Your task to perform on an android device: Play the last video I watched on Youtube Image 0: 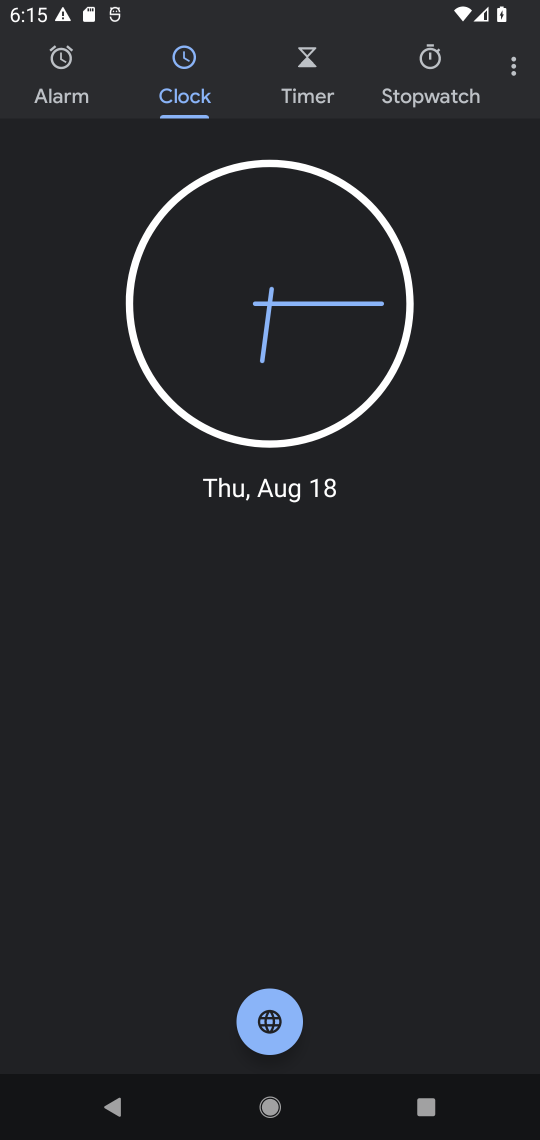
Step 0: press home button
Your task to perform on an android device: Play the last video I watched on Youtube Image 1: 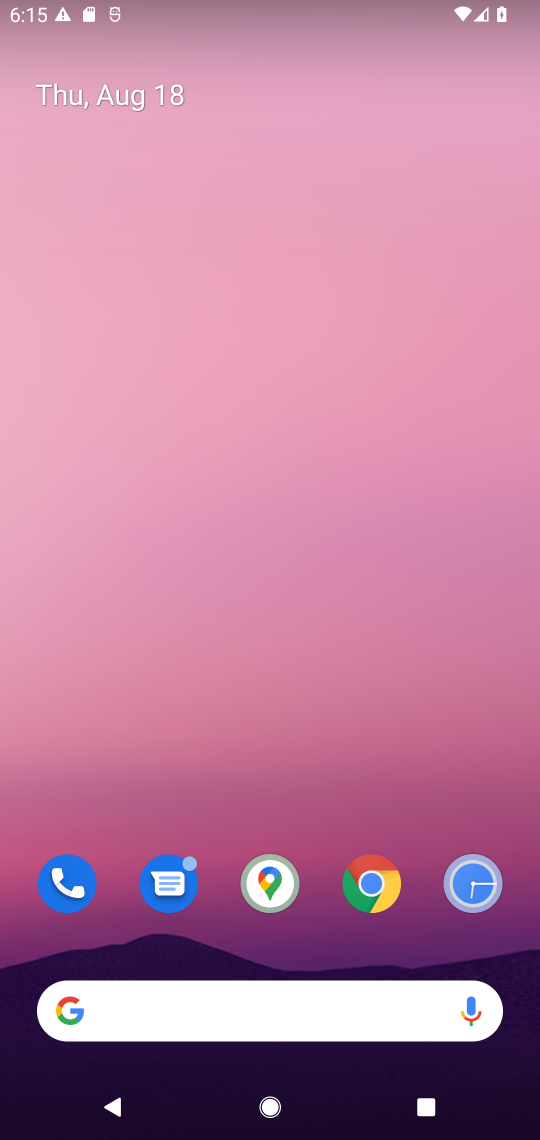
Step 1: drag from (32, 1114) to (216, 646)
Your task to perform on an android device: Play the last video I watched on Youtube Image 2: 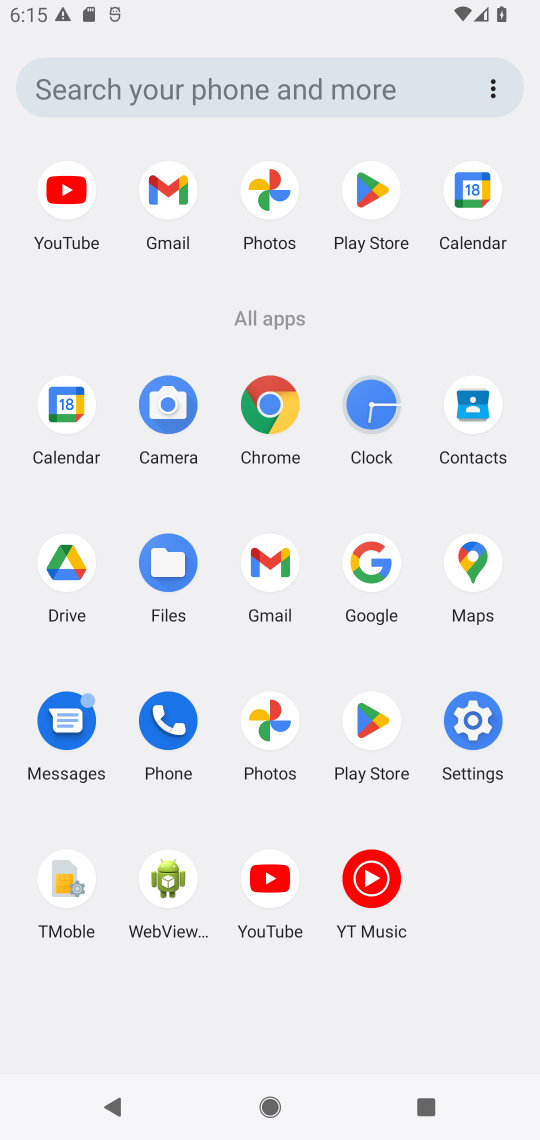
Step 2: click (259, 869)
Your task to perform on an android device: Play the last video I watched on Youtube Image 3: 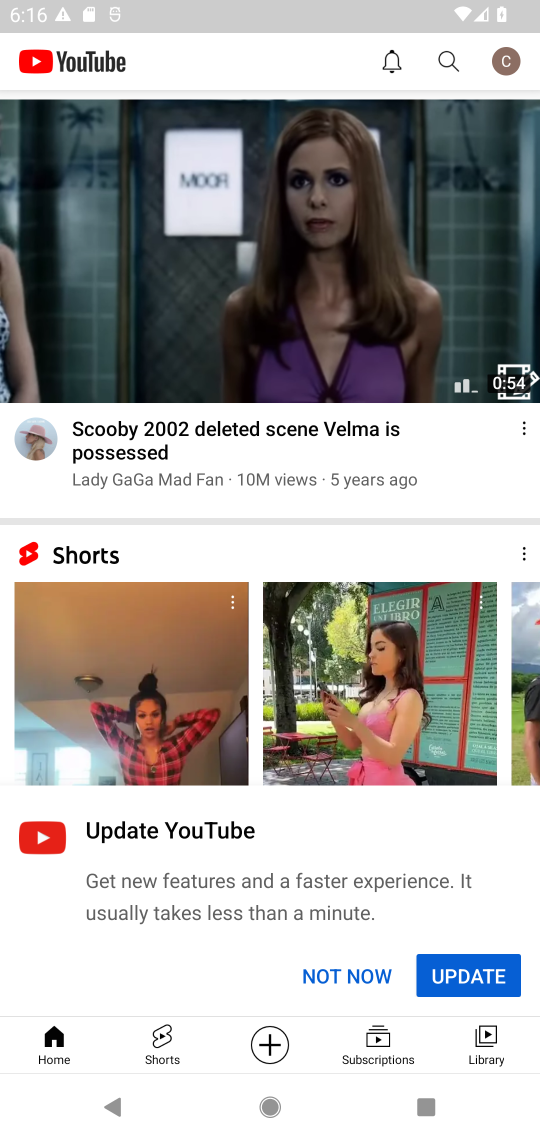
Step 3: click (473, 1049)
Your task to perform on an android device: Play the last video I watched on Youtube Image 4: 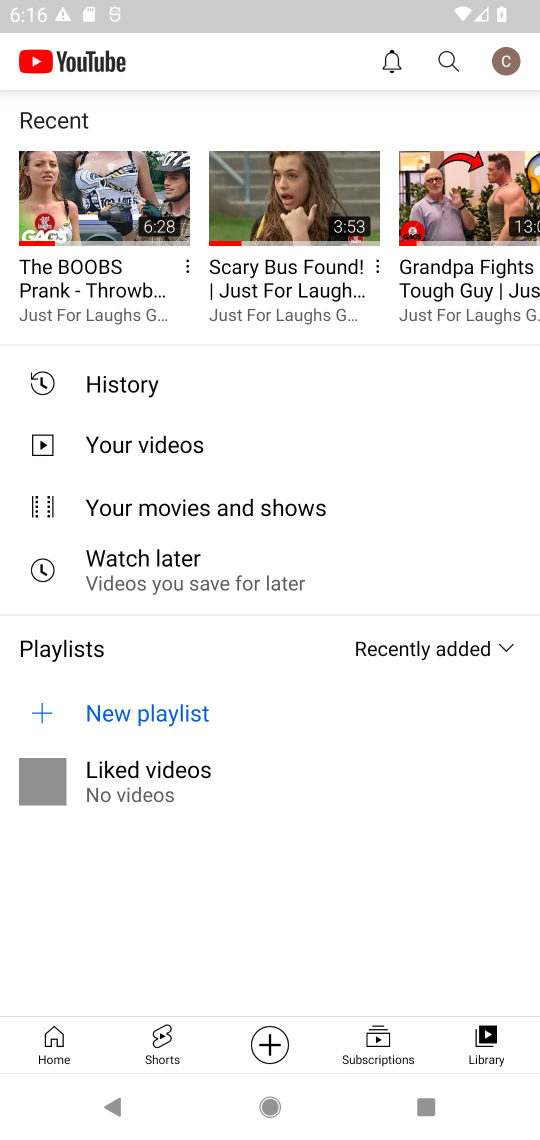
Step 4: click (98, 168)
Your task to perform on an android device: Play the last video I watched on Youtube Image 5: 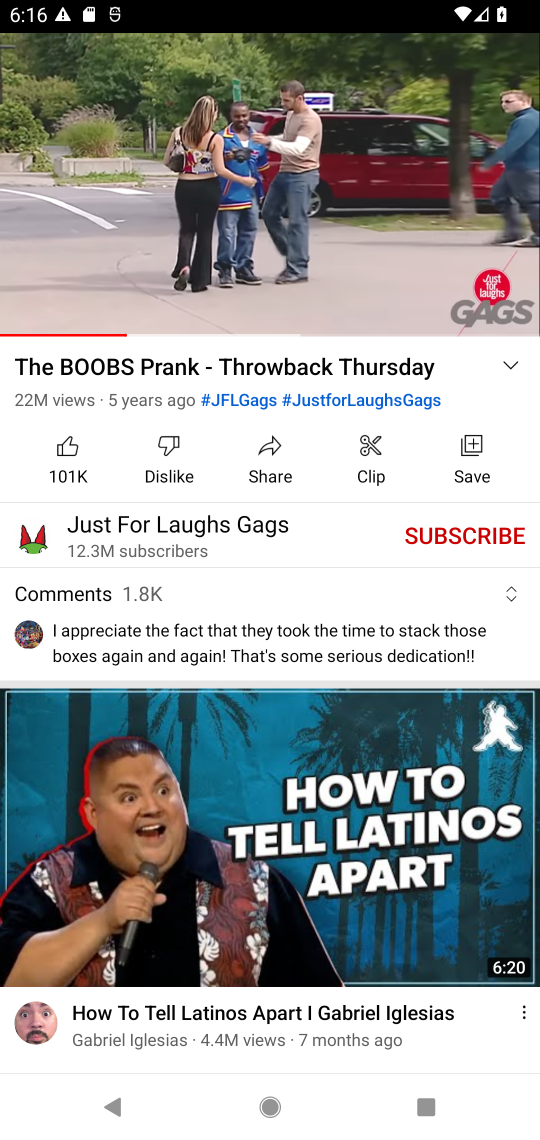
Step 5: task complete